Your task to perform on an android device: open the mobile data screen to see how much data has been used Image 0: 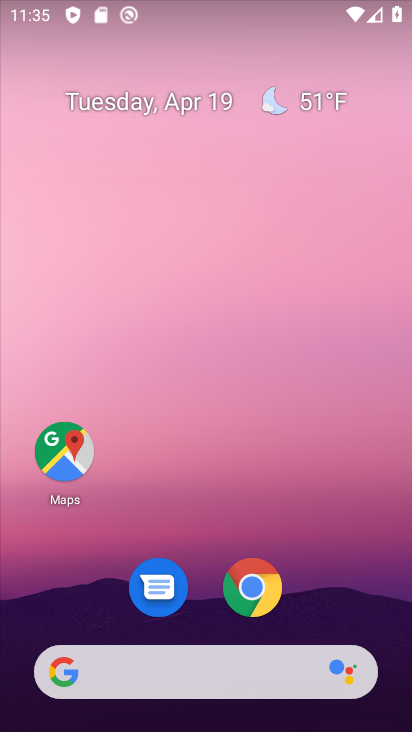
Step 0: drag from (213, 494) to (271, 65)
Your task to perform on an android device: open the mobile data screen to see how much data has been used Image 1: 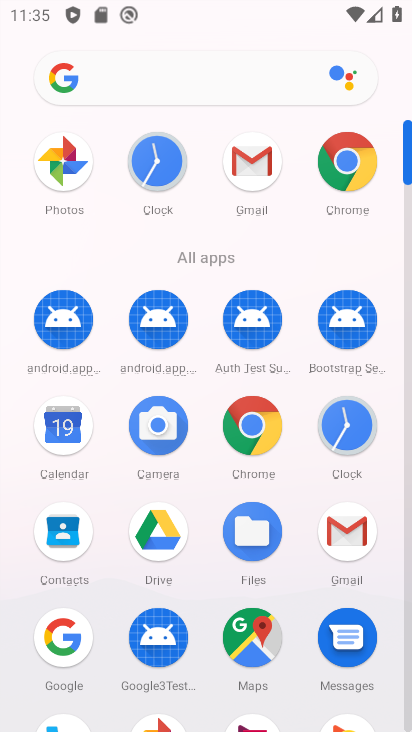
Step 1: drag from (197, 570) to (218, 169)
Your task to perform on an android device: open the mobile data screen to see how much data has been used Image 2: 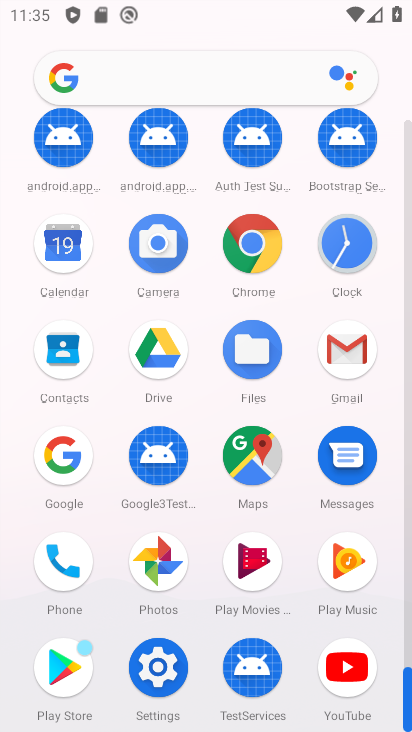
Step 2: click (170, 676)
Your task to perform on an android device: open the mobile data screen to see how much data has been used Image 3: 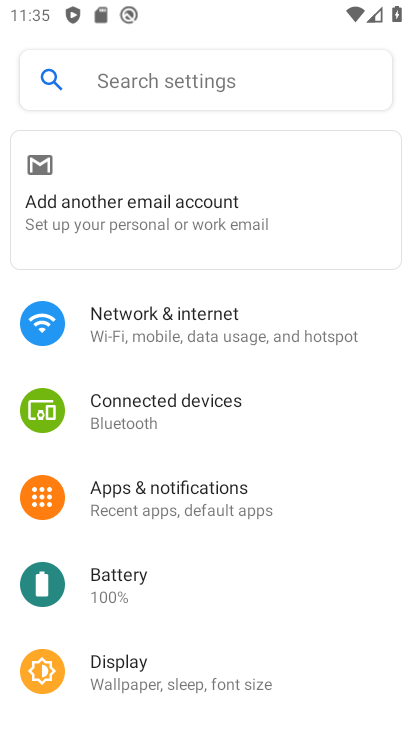
Step 3: click (175, 315)
Your task to perform on an android device: open the mobile data screen to see how much data has been used Image 4: 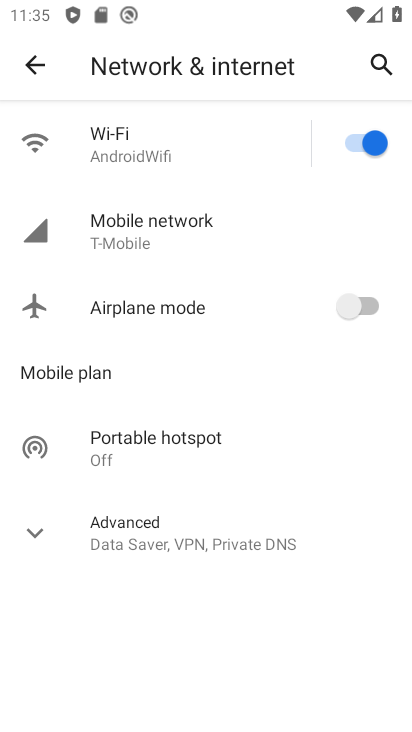
Step 4: click (168, 248)
Your task to perform on an android device: open the mobile data screen to see how much data has been used Image 5: 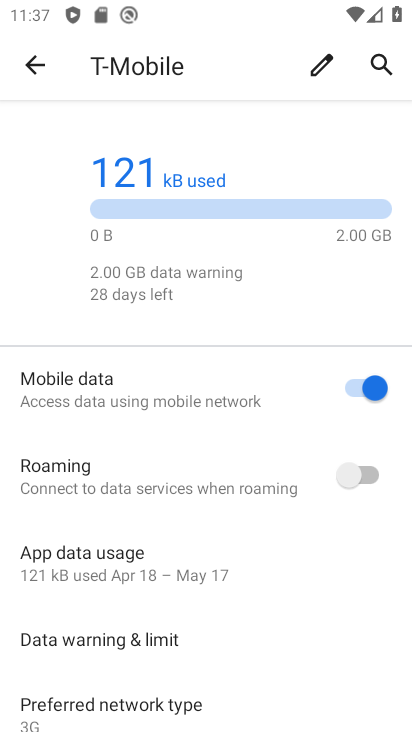
Step 5: task complete